Your task to perform on an android device: Open the calendar and show me this week's events Image 0: 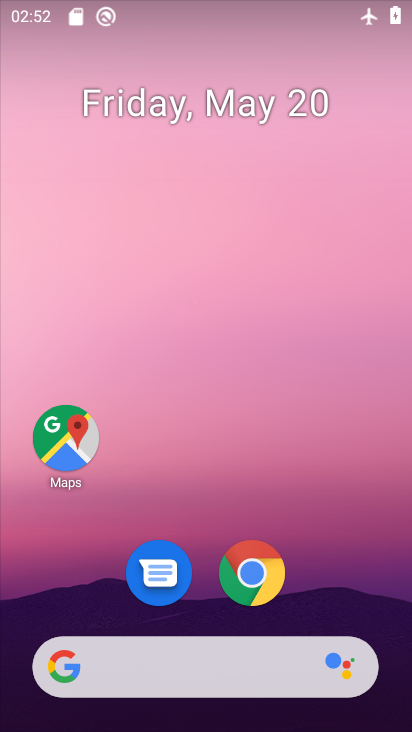
Step 0: drag from (204, 615) to (232, 259)
Your task to perform on an android device: Open the calendar and show me this week's events Image 1: 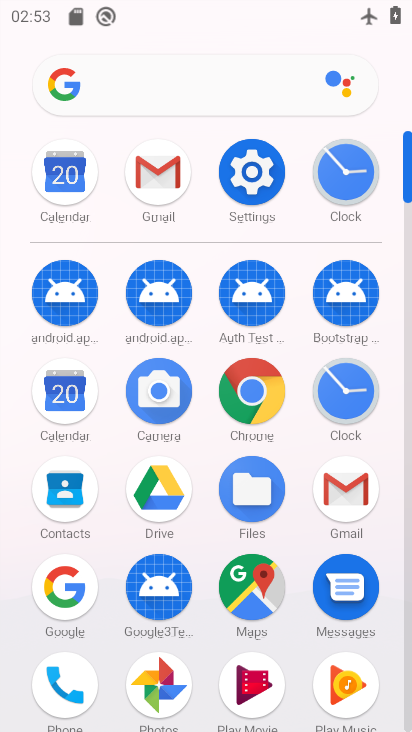
Step 1: click (71, 379)
Your task to perform on an android device: Open the calendar and show me this week's events Image 2: 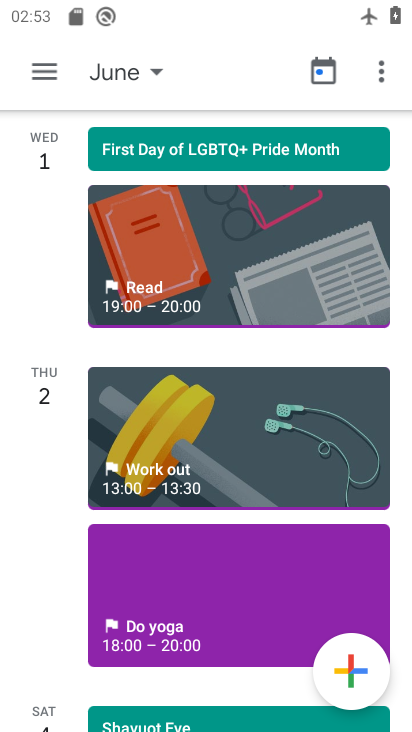
Step 2: click (142, 67)
Your task to perform on an android device: Open the calendar and show me this week's events Image 3: 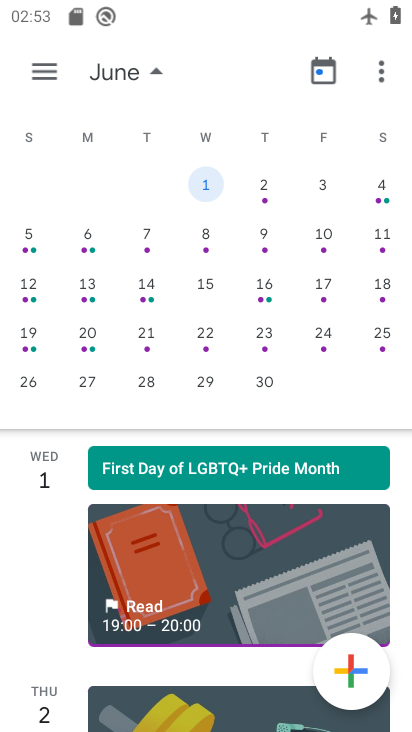
Step 3: drag from (59, 268) to (275, 269)
Your task to perform on an android device: Open the calendar and show me this week's events Image 4: 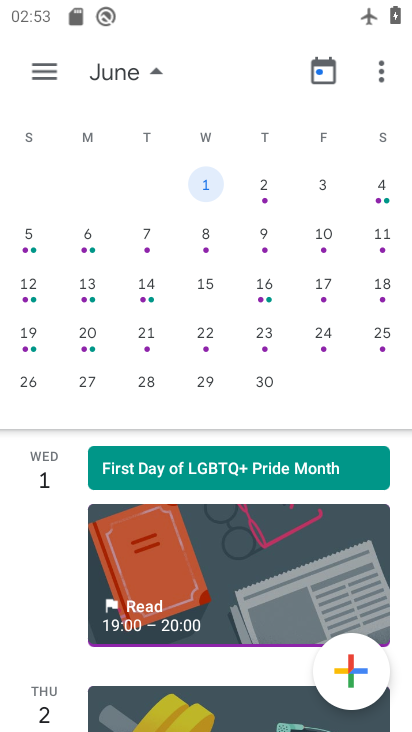
Step 4: drag from (53, 273) to (333, 268)
Your task to perform on an android device: Open the calendar and show me this week's events Image 5: 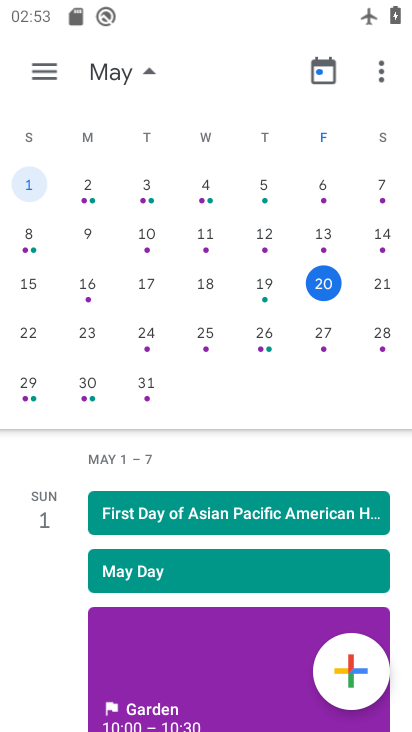
Step 5: click (318, 294)
Your task to perform on an android device: Open the calendar and show me this week's events Image 6: 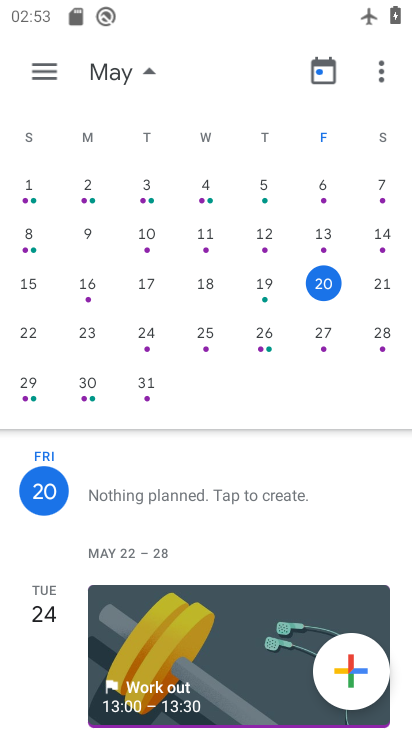
Step 6: task complete